Your task to perform on an android device: See recent photos Image 0: 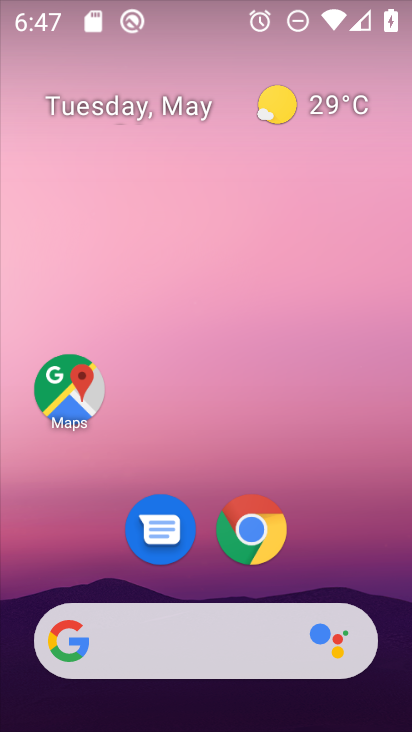
Step 0: drag from (371, 562) to (226, 123)
Your task to perform on an android device: See recent photos Image 1: 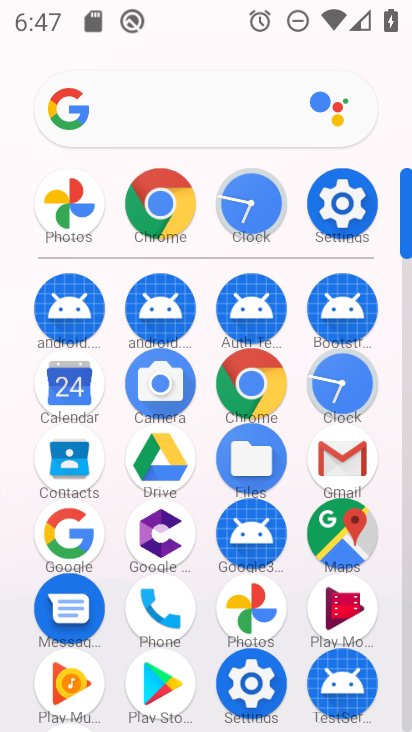
Step 1: click (244, 596)
Your task to perform on an android device: See recent photos Image 2: 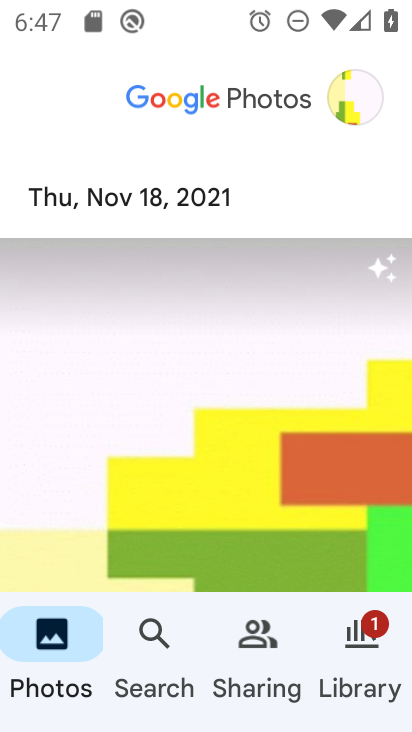
Step 2: task complete